Your task to perform on an android device: Go to Google maps Image 0: 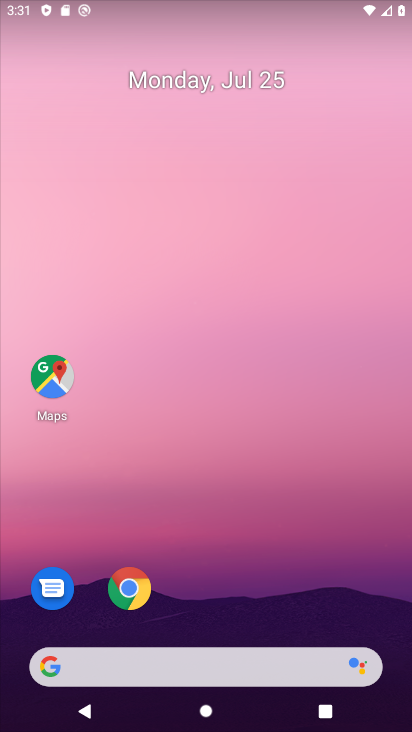
Step 0: drag from (222, 713) to (216, 90)
Your task to perform on an android device: Go to Google maps Image 1: 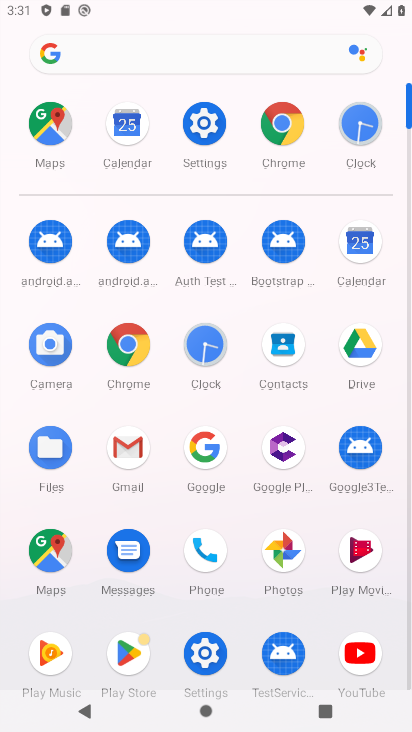
Step 1: click (50, 550)
Your task to perform on an android device: Go to Google maps Image 2: 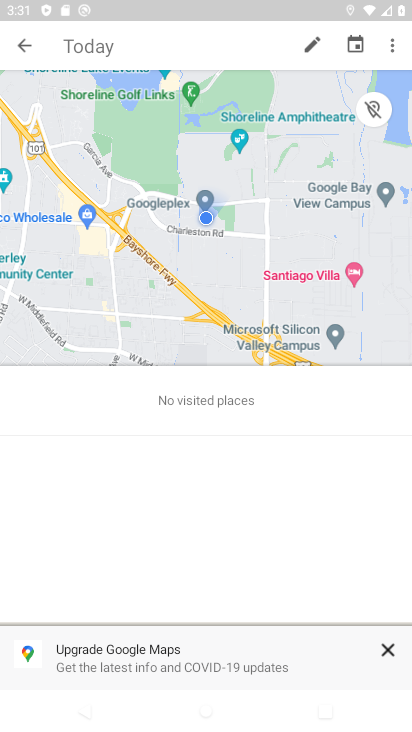
Step 2: click (22, 43)
Your task to perform on an android device: Go to Google maps Image 3: 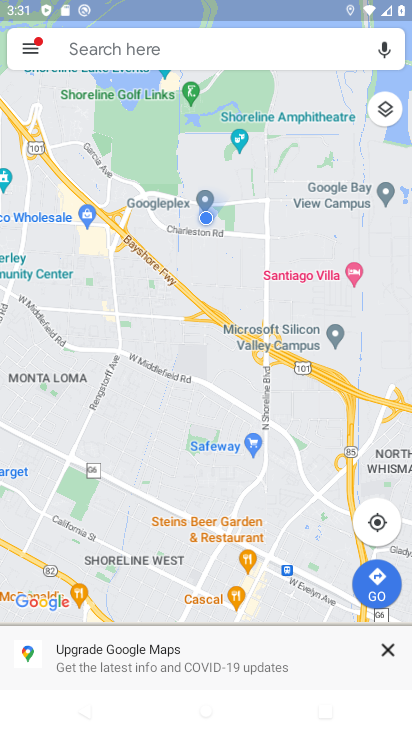
Step 3: task complete